Your task to perform on an android device: Is it going to rain today? Image 0: 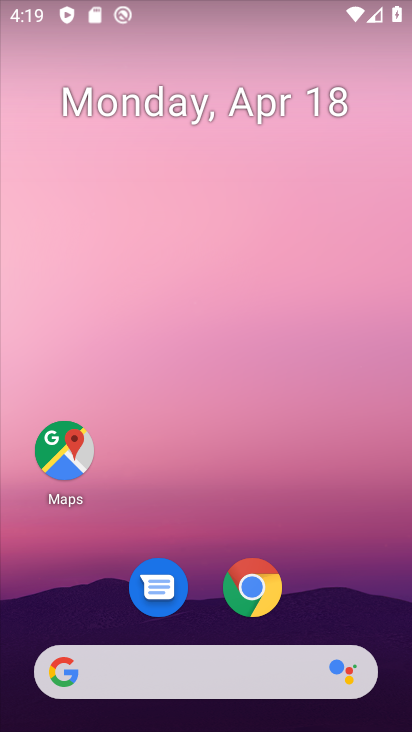
Step 0: drag from (191, 428) to (213, 267)
Your task to perform on an android device: Is it going to rain today? Image 1: 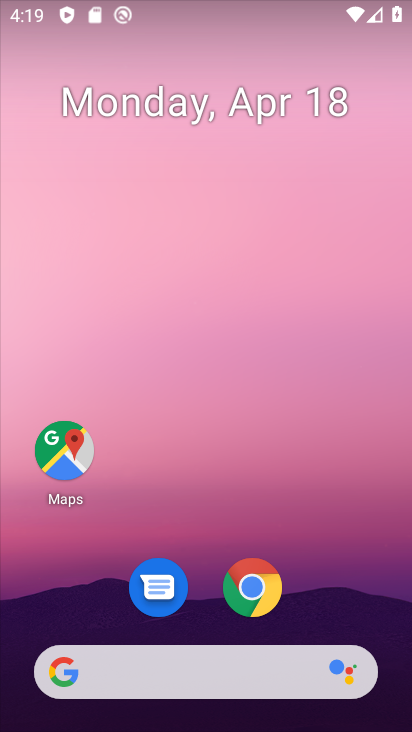
Step 1: drag from (269, 395) to (267, 222)
Your task to perform on an android device: Is it going to rain today? Image 2: 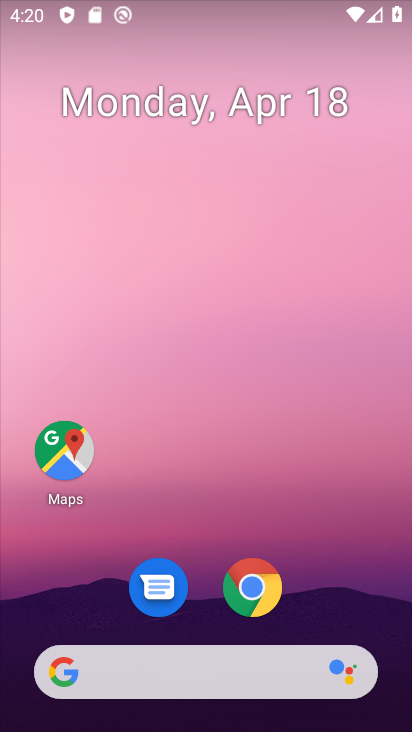
Step 2: drag from (315, 441) to (313, 265)
Your task to perform on an android device: Is it going to rain today? Image 3: 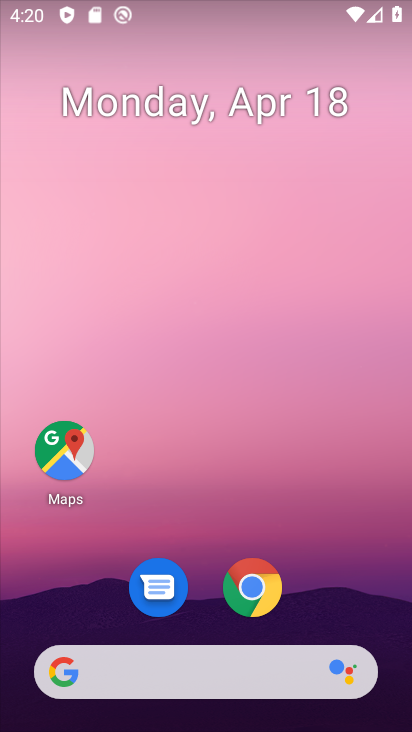
Step 3: drag from (213, 484) to (222, 229)
Your task to perform on an android device: Is it going to rain today? Image 4: 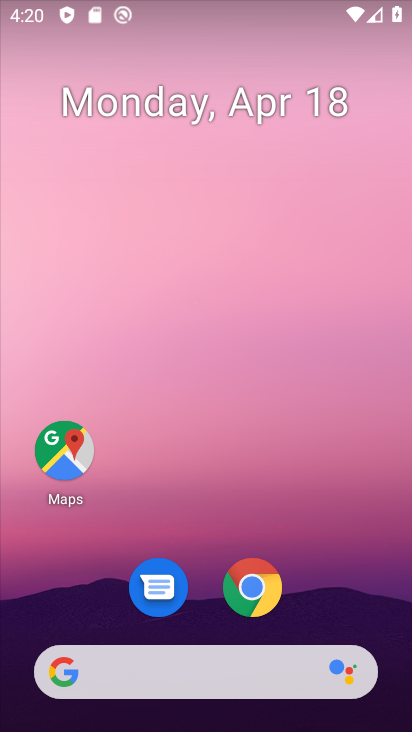
Step 4: drag from (196, 557) to (206, 129)
Your task to perform on an android device: Is it going to rain today? Image 5: 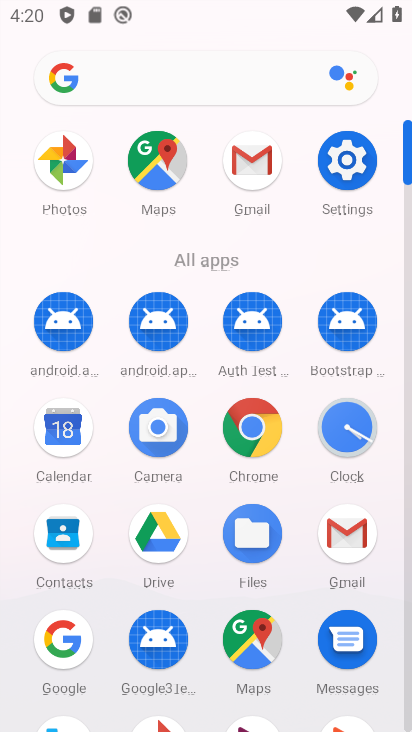
Step 5: click (258, 426)
Your task to perform on an android device: Is it going to rain today? Image 6: 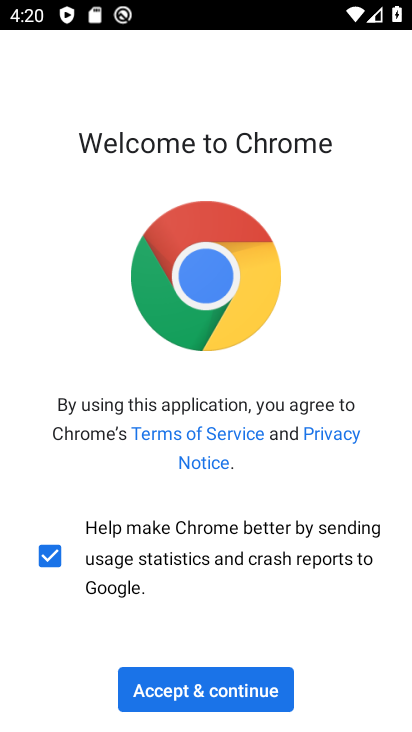
Step 6: click (217, 681)
Your task to perform on an android device: Is it going to rain today? Image 7: 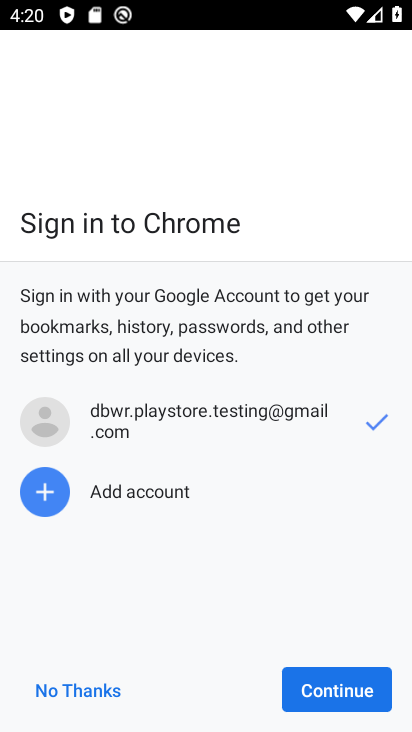
Step 7: click (318, 682)
Your task to perform on an android device: Is it going to rain today? Image 8: 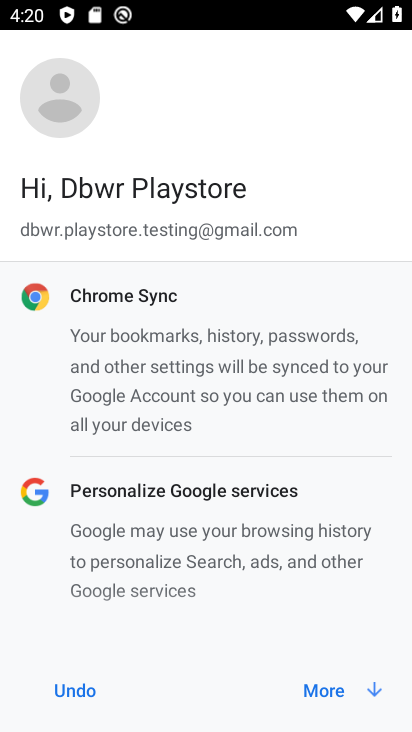
Step 8: click (332, 684)
Your task to perform on an android device: Is it going to rain today? Image 9: 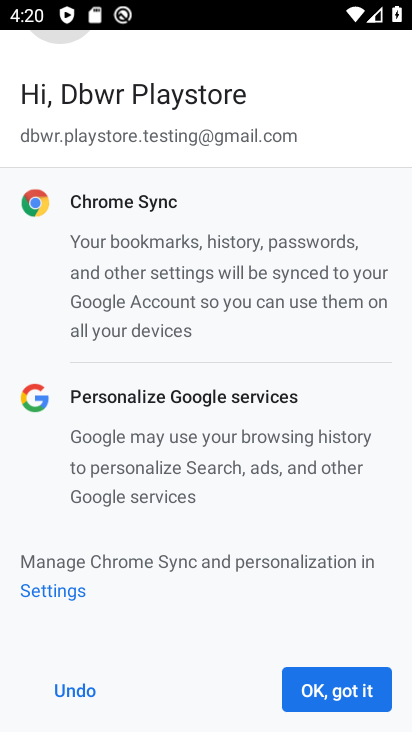
Step 9: click (332, 684)
Your task to perform on an android device: Is it going to rain today? Image 10: 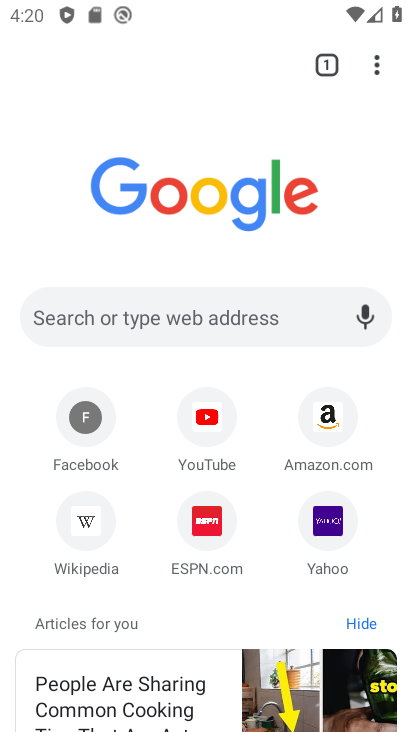
Step 10: click (322, 292)
Your task to perform on an android device: Is it going to rain today? Image 11: 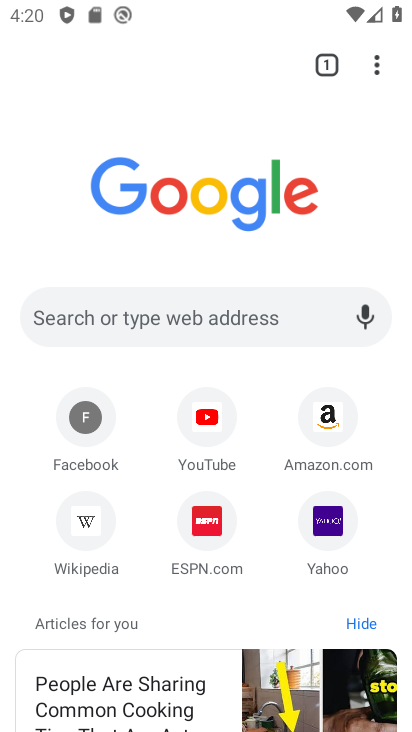
Step 11: type "Is it going to rain today?"
Your task to perform on an android device: Is it going to rain today? Image 12: 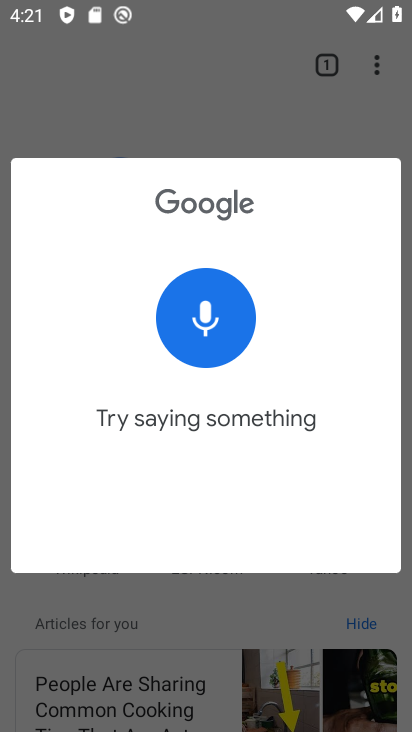
Step 12: click (339, 109)
Your task to perform on an android device: Is it going to rain today? Image 13: 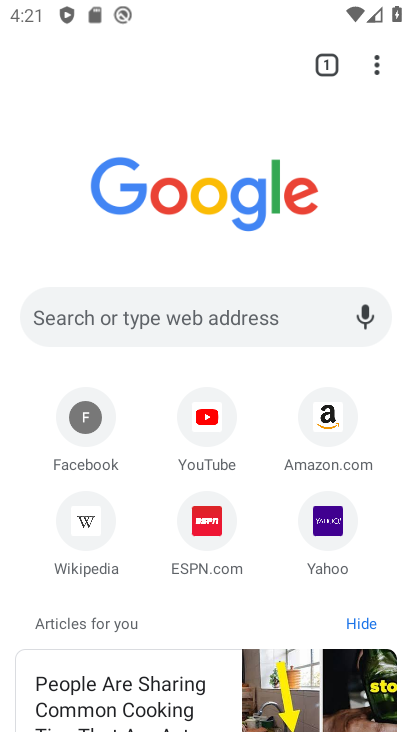
Step 13: click (259, 314)
Your task to perform on an android device: Is it going to rain today? Image 14: 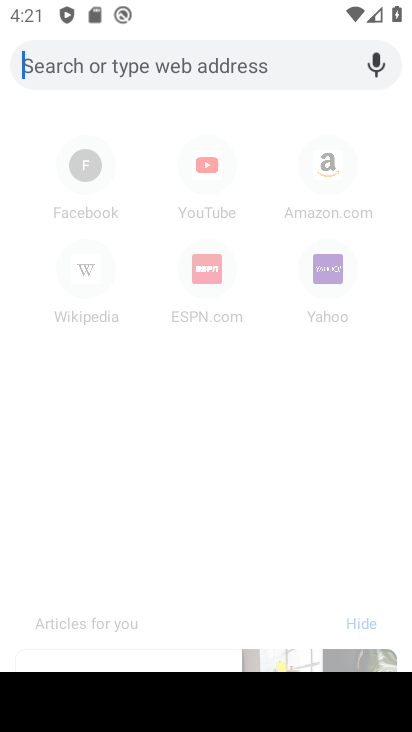
Step 14: type "going to rain today?"
Your task to perform on an android device: Is it going to rain today? Image 15: 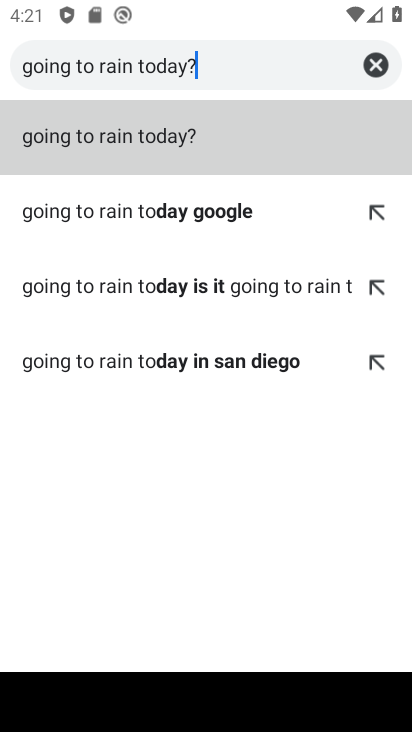
Step 15: click (222, 139)
Your task to perform on an android device: Is it going to rain today? Image 16: 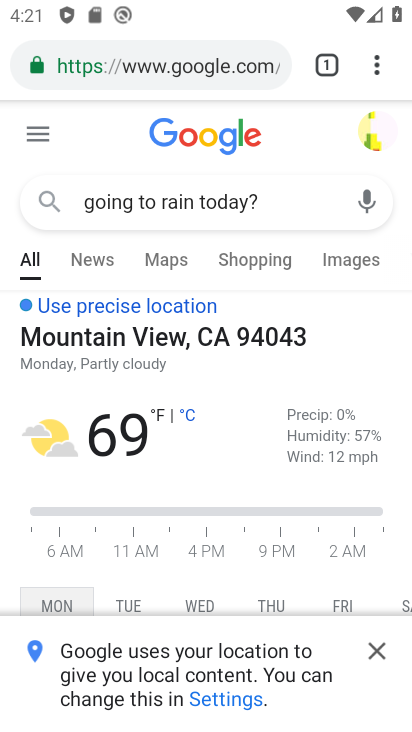
Step 16: task complete